Your task to perform on an android device: turn on the 12-hour format for clock Image 0: 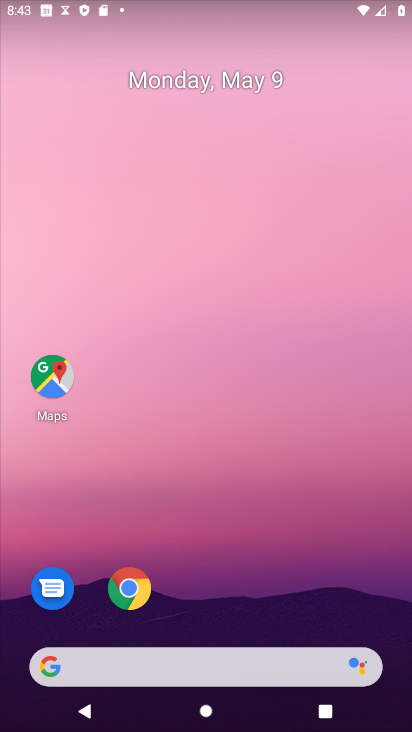
Step 0: drag from (191, 574) to (259, 120)
Your task to perform on an android device: turn on the 12-hour format for clock Image 1: 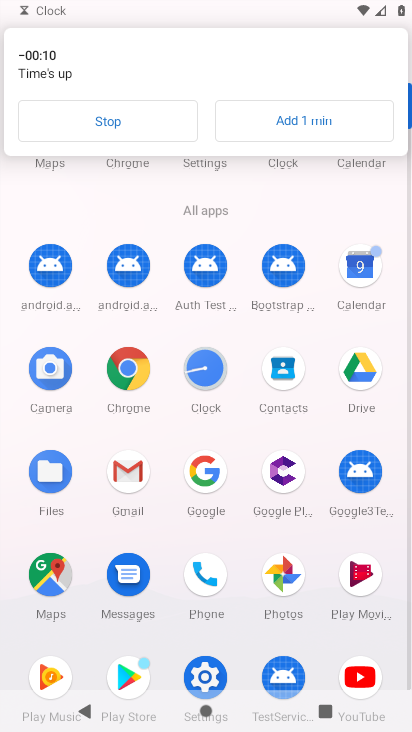
Step 1: click (146, 123)
Your task to perform on an android device: turn on the 12-hour format for clock Image 2: 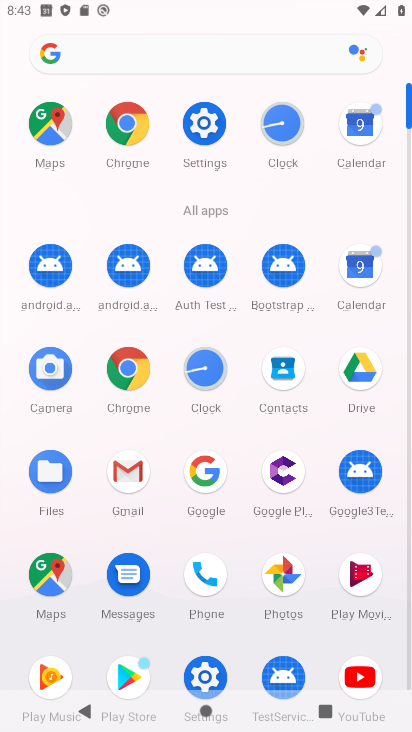
Step 2: click (283, 130)
Your task to perform on an android device: turn on the 12-hour format for clock Image 3: 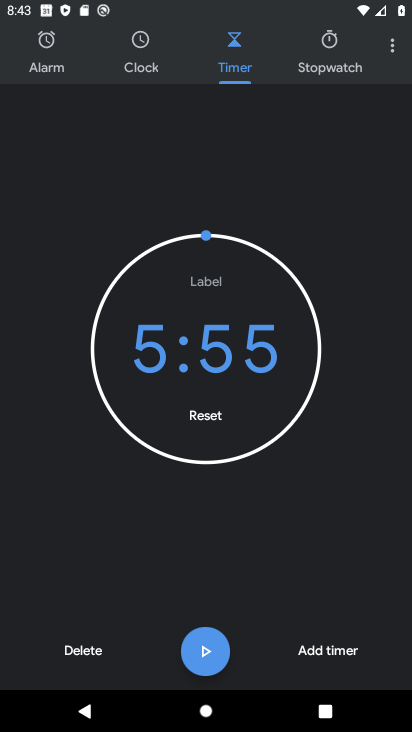
Step 3: click (397, 46)
Your task to perform on an android device: turn on the 12-hour format for clock Image 4: 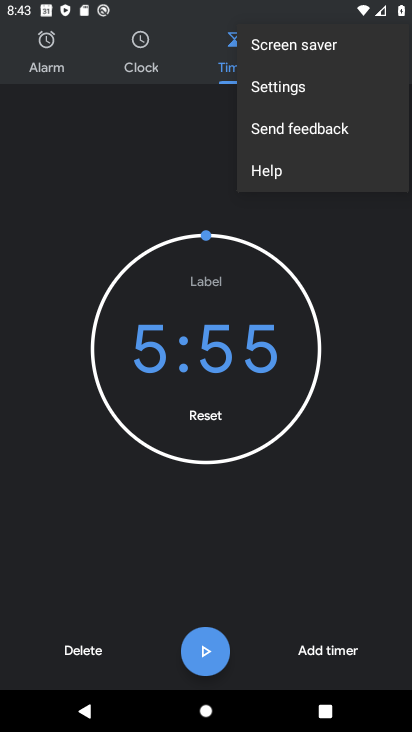
Step 4: click (294, 84)
Your task to perform on an android device: turn on the 12-hour format for clock Image 5: 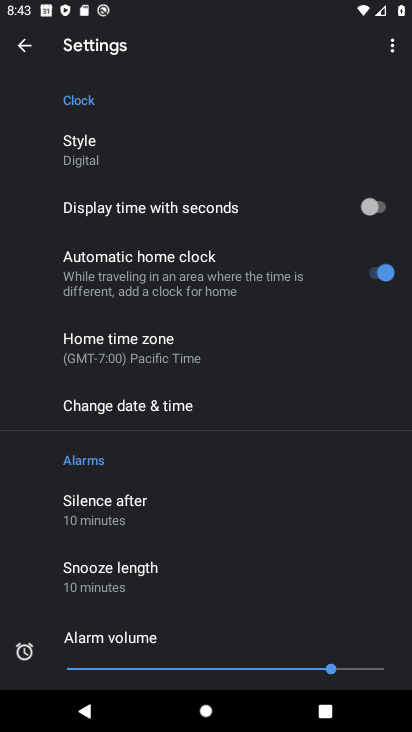
Step 5: click (179, 403)
Your task to perform on an android device: turn on the 12-hour format for clock Image 6: 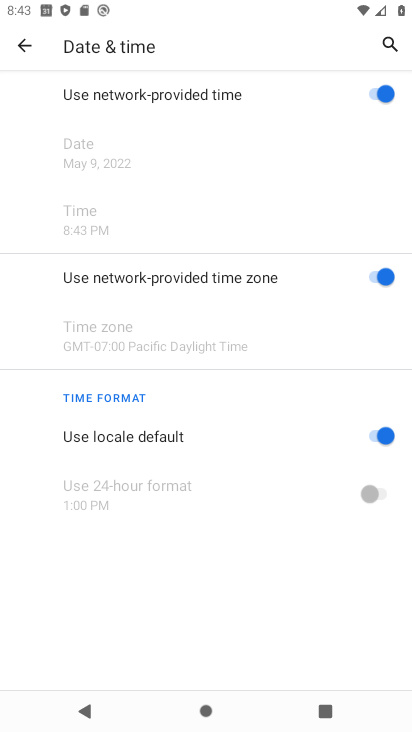
Step 6: task complete